Your task to perform on an android device: Open CNN.com Image 0: 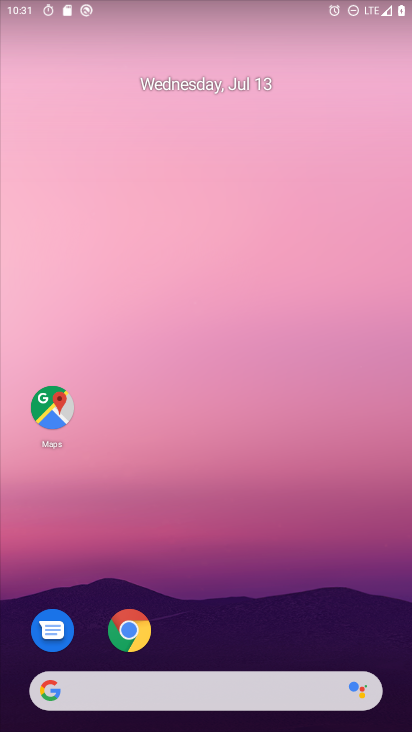
Step 0: drag from (386, 610) to (318, 0)
Your task to perform on an android device: Open CNN.com Image 1: 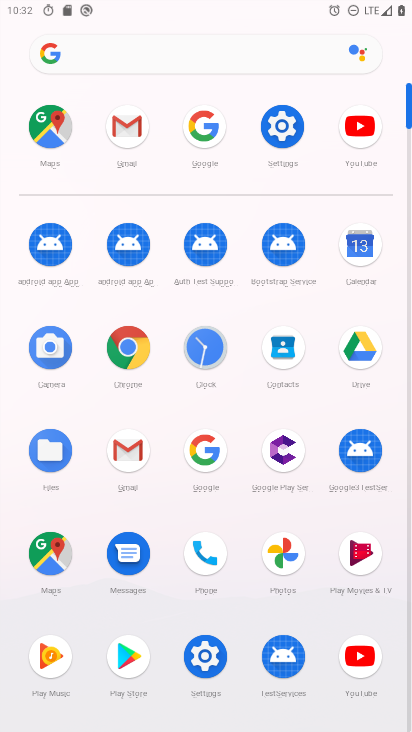
Step 1: click (215, 445)
Your task to perform on an android device: Open CNN.com Image 2: 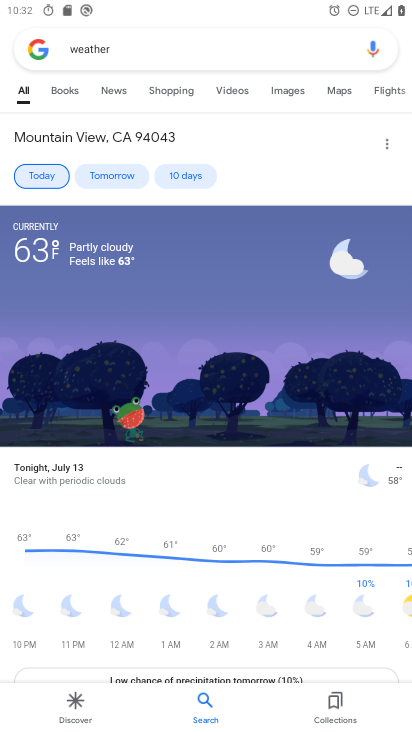
Step 2: press back button
Your task to perform on an android device: Open CNN.com Image 3: 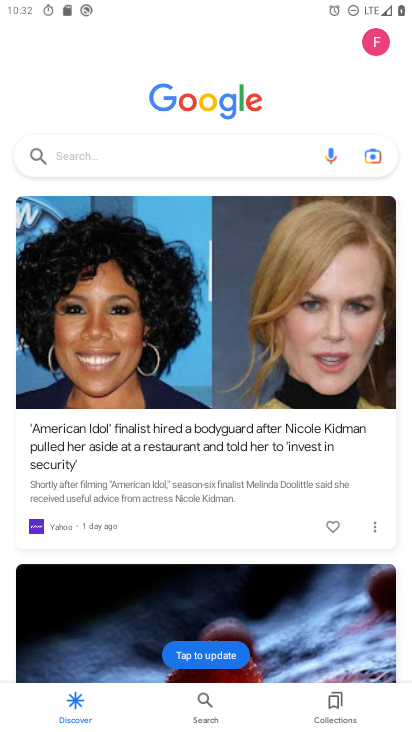
Step 3: click (119, 144)
Your task to perform on an android device: Open CNN.com Image 4: 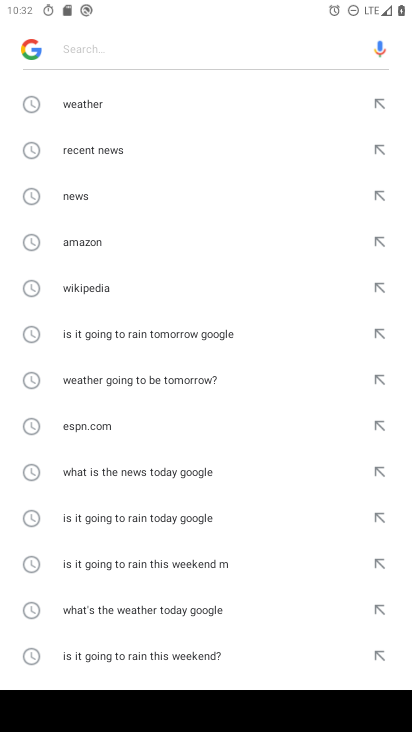
Step 4: type "CNN.com"
Your task to perform on an android device: Open CNN.com Image 5: 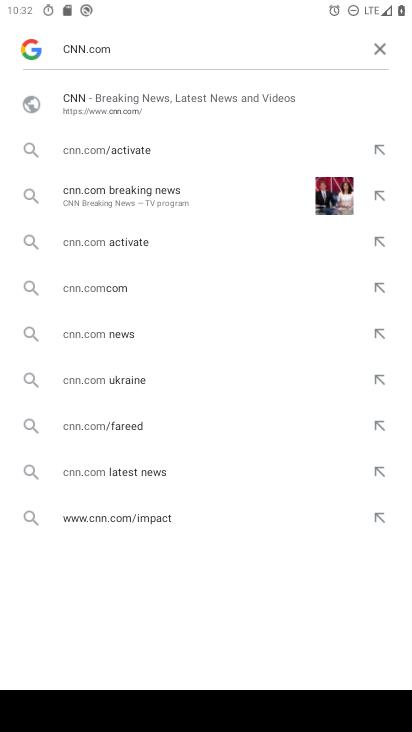
Step 5: click (155, 93)
Your task to perform on an android device: Open CNN.com Image 6: 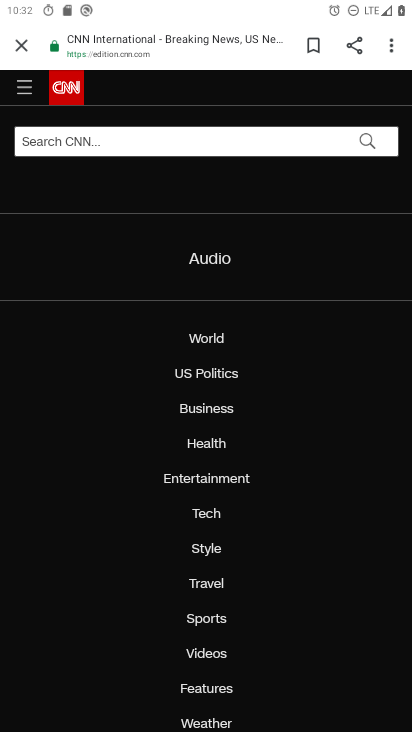
Step 6: task complete